Your task to perform on an android device: Open Android settings Image 0: 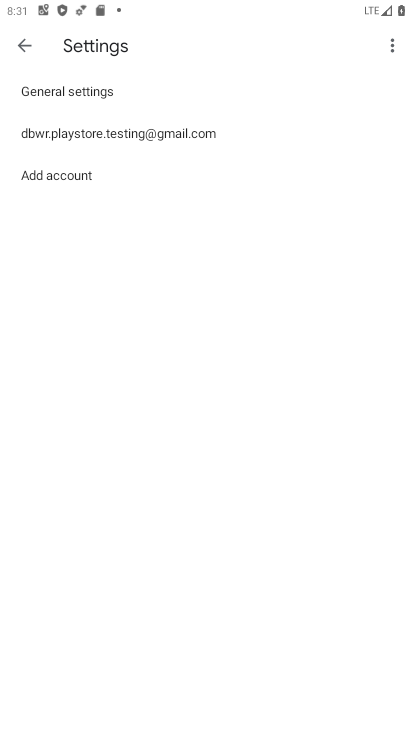
Step 0: press home button
Your task to perform on an android device: Open Android settings Image 1: 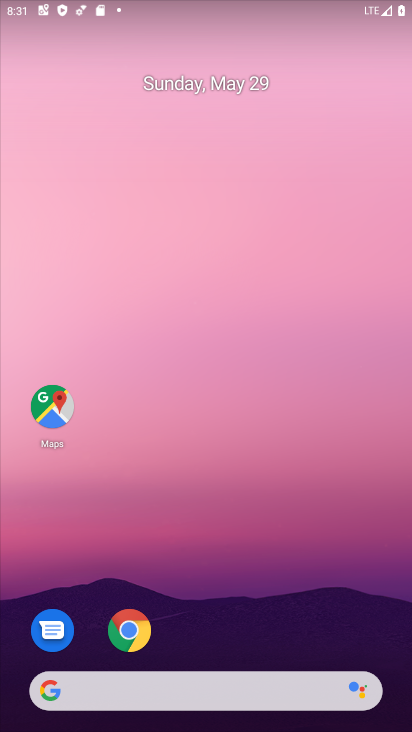
Step 1: drag from (200, 639) to (277, 20)
Your task to perform on an android device: Open Android settings Image 2: 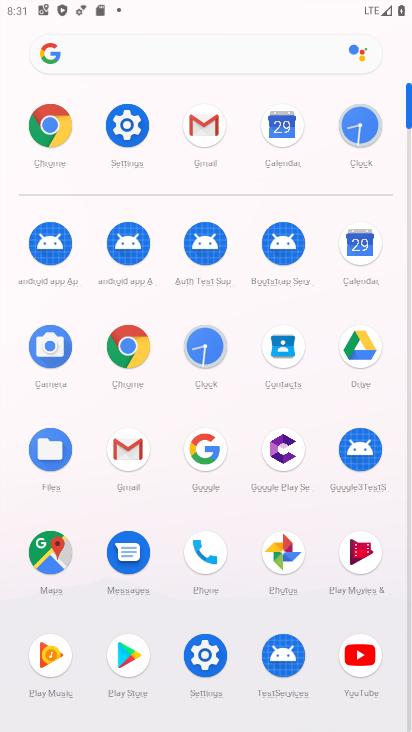
Step 2: click (123, 142)
Your task to perform on an android device: Open Android settings Image 3: 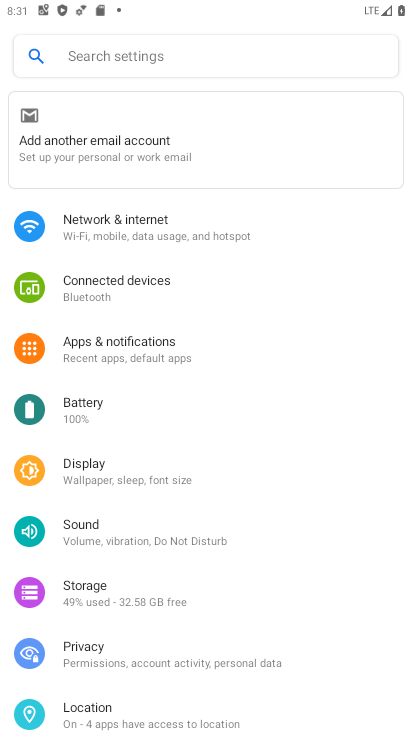
Step 3: click (95, 224)
Your task to perform on an android device: Open Android settings Image 4: 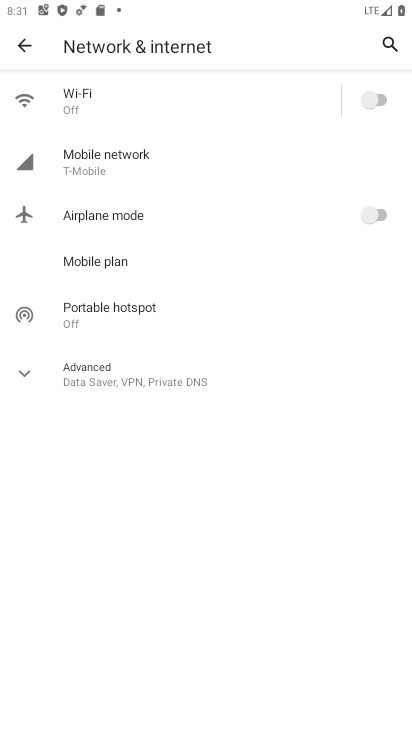
Step 4: click (22, 50)
Your task to perform on an android device: Open Android settings Image 5: 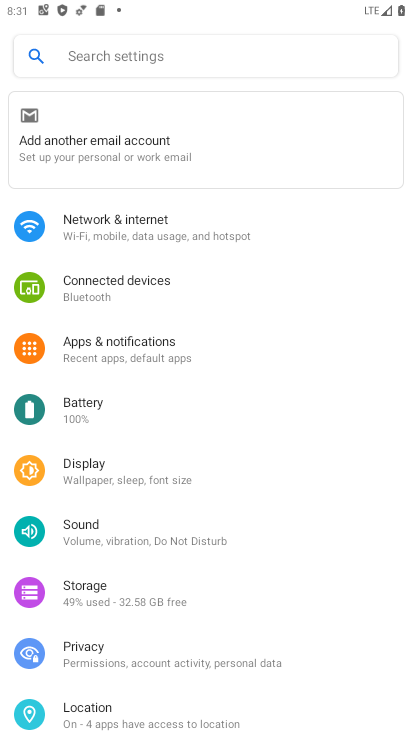
Step 5: task complete